Your task to perform on an android device: open wifi settings Image 0: 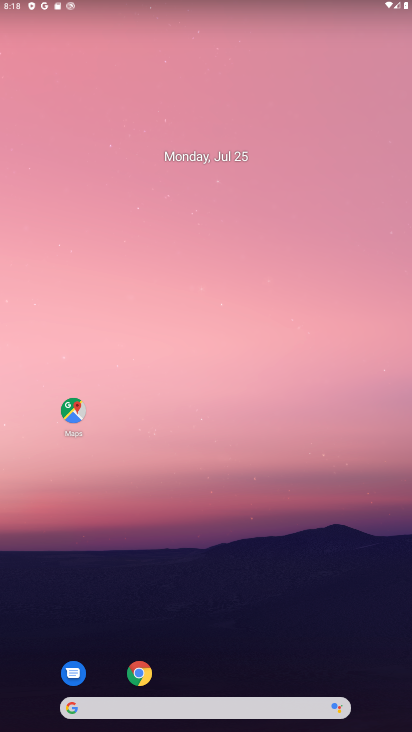
Step 0: drag from (300, 674) to (317, 3)
Your task to perform on an android device: open wifi settings Image 1: 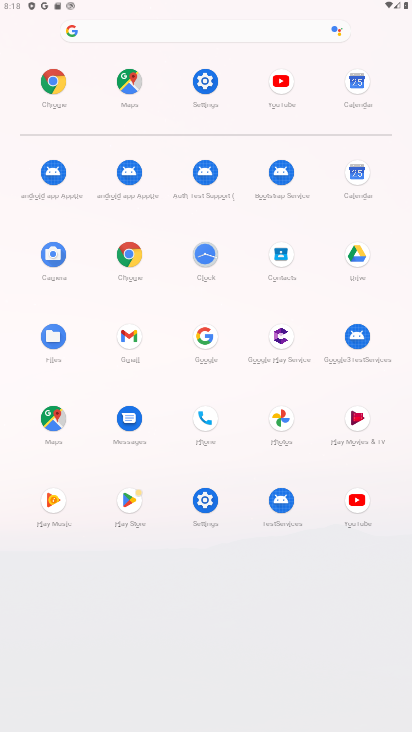
Step 1: click (219, 95)
Your task to perform on an android device: open wifi settings Image 2: 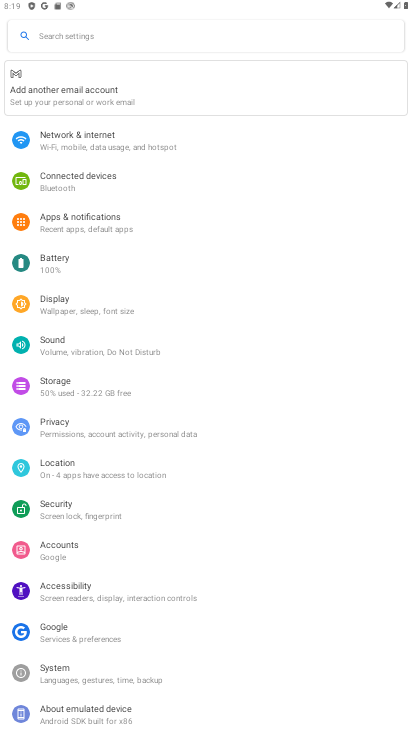
Step 2: click (173, 147)
Your task to perform on an android device: open wifi settings Image 3: 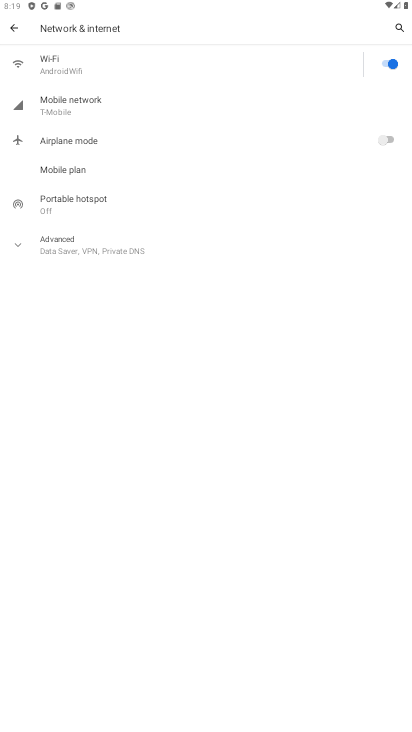
Step 3: task complete